Your task to perform on an android device: create a new album in the google photos Image 0: 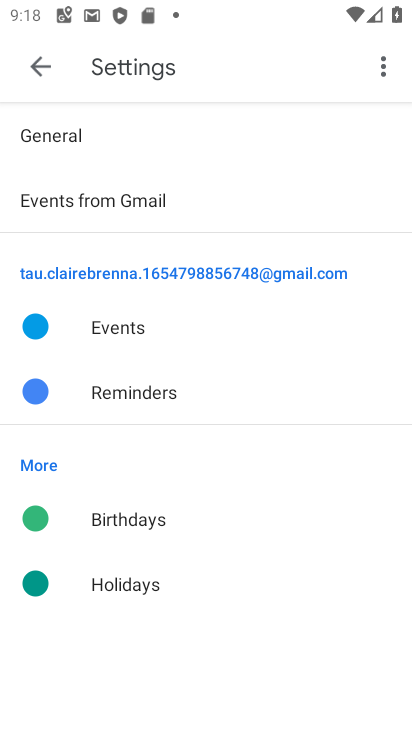
Step 0: press home button
Your task to perform on an android device: create a new album in the google photos Image 1: 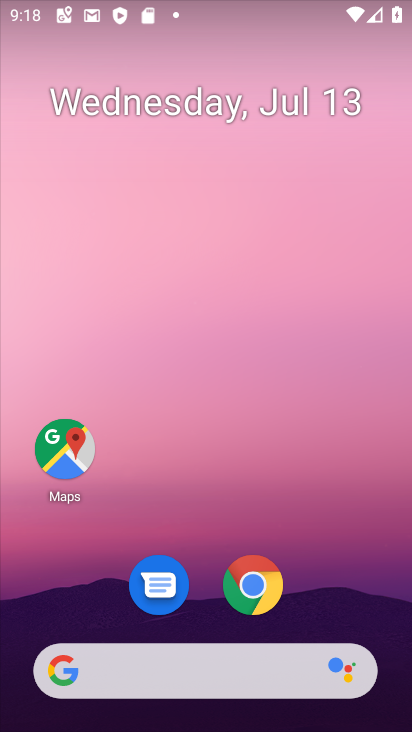
Step 1: drag from (326, 575) to (308, 4)
Your task to perform on an android device: create a new album in the google photos Image 2: 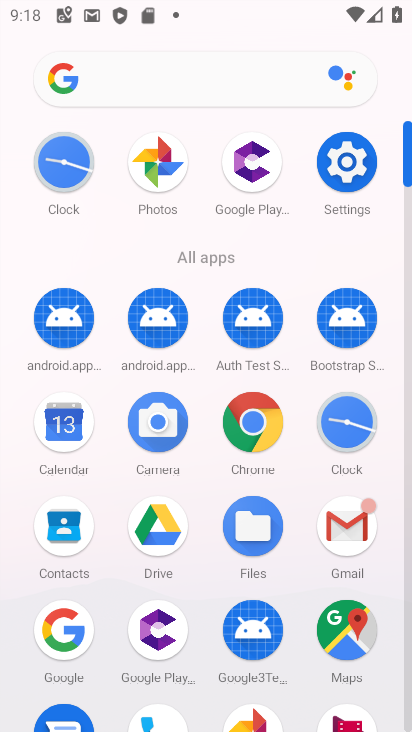
Step 2: click (163, 171)
Your task to perform on an android device: create a new album in the google photos Image 3: 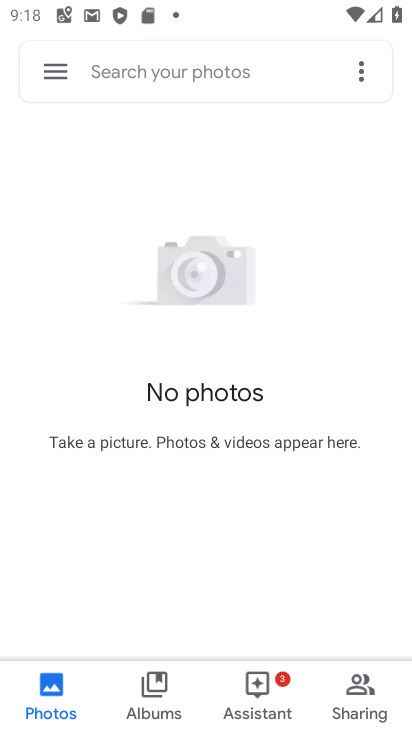
Step 3: click (154, 695)
Your task to perform on an android device: create a new album in the google photos Image 4: 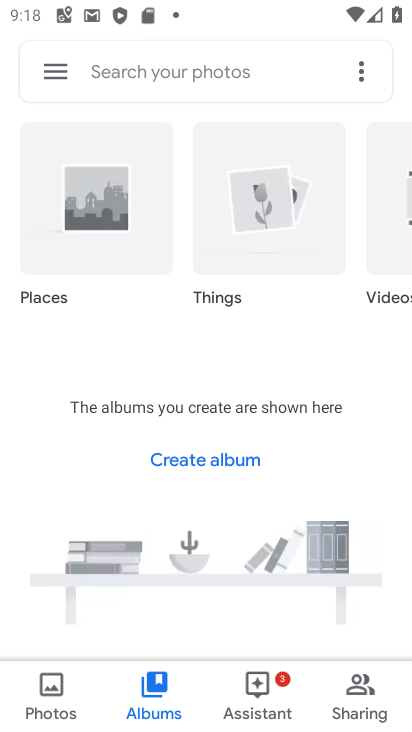
Step 4: drag from (263, 415) to (248, 181)
Your task to perform on an android device: create a new album in the google photos Image 5: 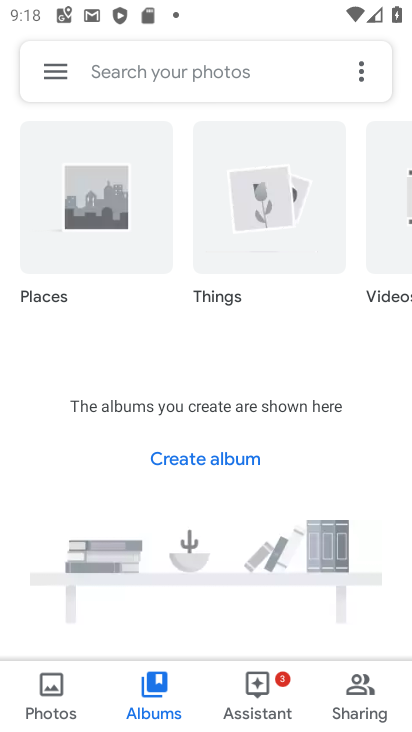
Step 5: drag from (246, 477) to (120, 493)
Your task to perform on an android device: create a new album in the google photos Image 6: 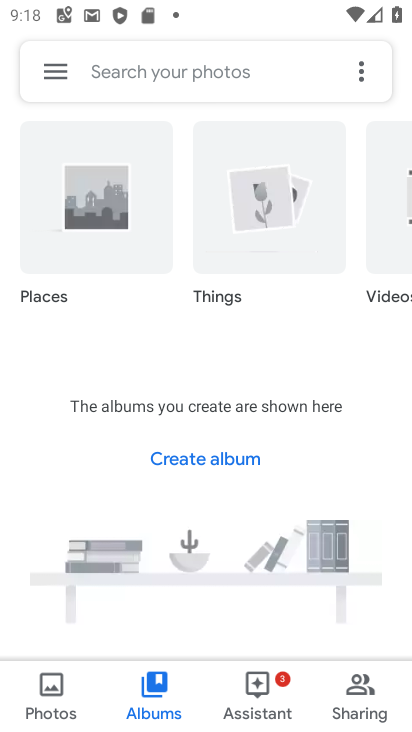
Step 6: click (240, 460)
Your task to perform on an android device: create a new album in the google photos Image 7: 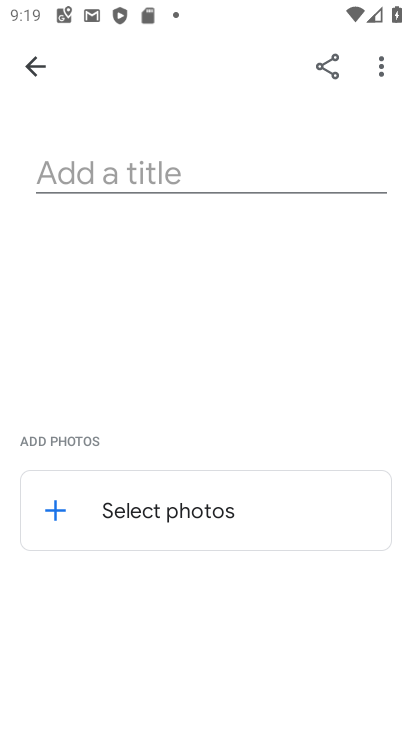
Step 7: click (233, 168)
Your task to perform on an android device: create a new album in the google photos Image 8: 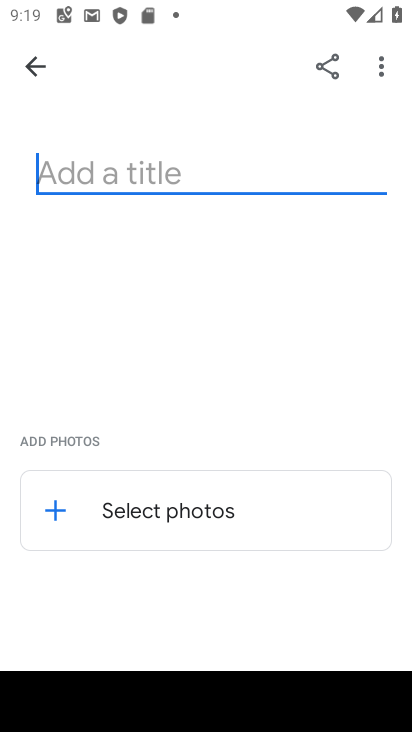
Step 8: type "Rishi Deva"
Your task to perform on an android device: create a new album in the google photos Image 9: 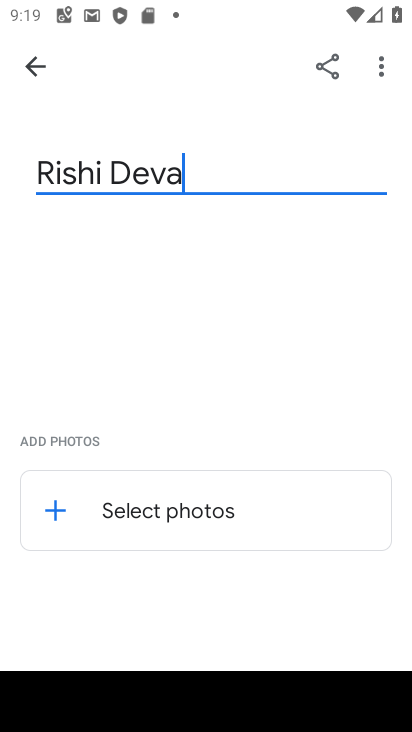
Step 9: click (379, 67)
Your task to perform on an android device: create a new album in the google photos Image 10: 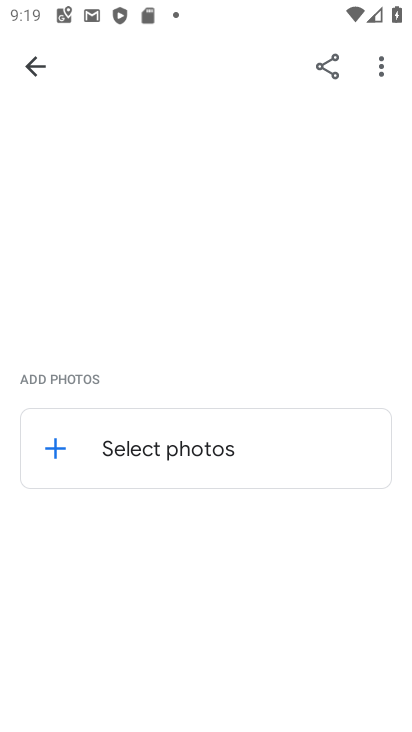
Step 10: click (45, 65)
Your task to perform on an android device: create a new album in the google photos Image 11: 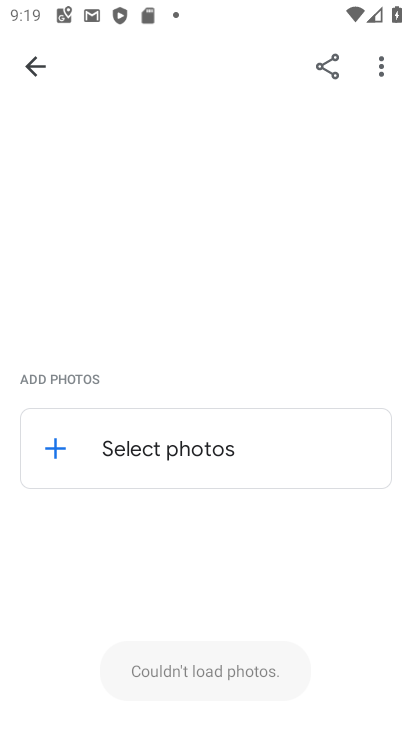
Step 11: click (54, 443)
Your task to perform on an android device: create a new album in the google photos Image 12: 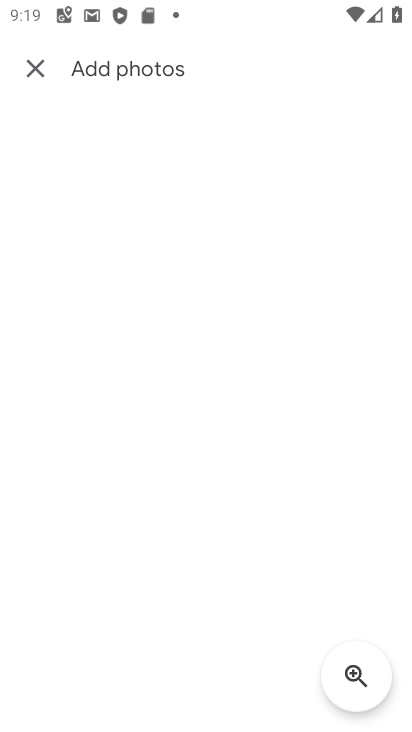
Step 12: click (32, 64)
Your task to perform on an android device: create a new album in the google photos Image 13: 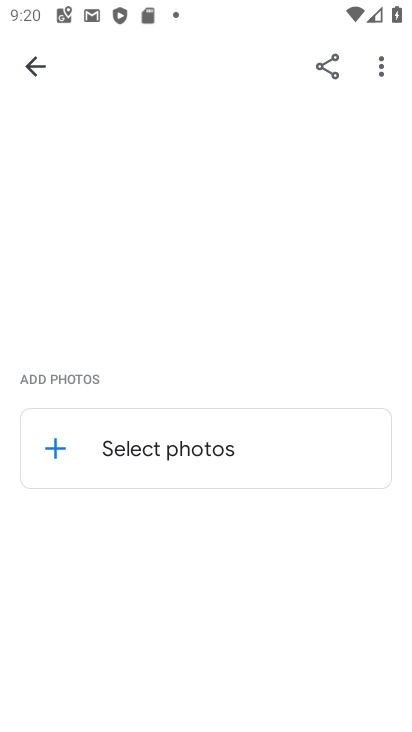
Step 13: click (379, 68)
Your task to perform on an android device: create a new album in the google photos Image 14: 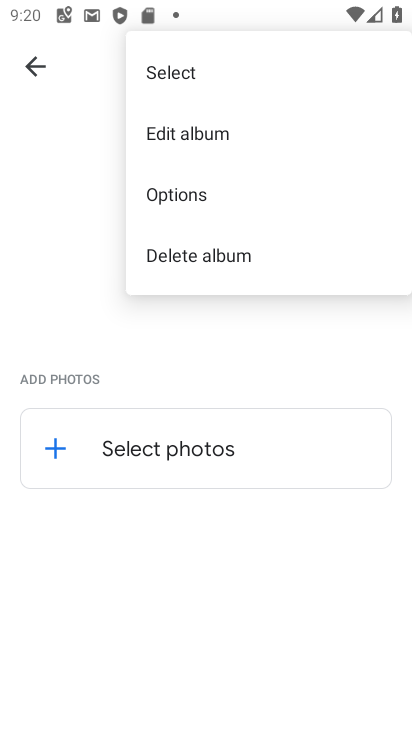
Step 14: click (196, 194)
Your task to perform on an android device: create a new album in the google photos Image 15: 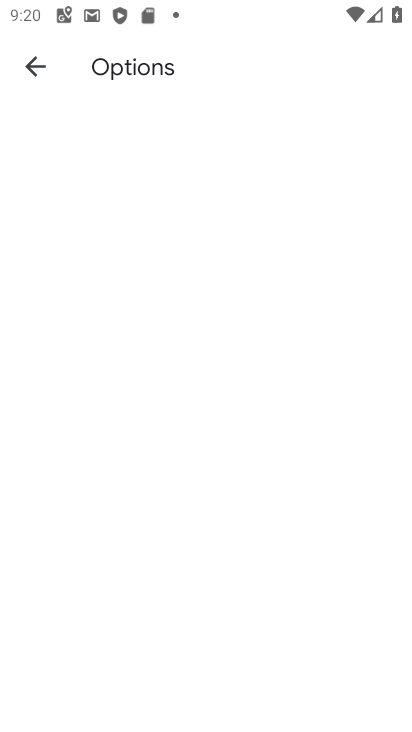
Step 15: click (42, 62)
Your task to perform on an android device: create a new album in the google photos Image 16: 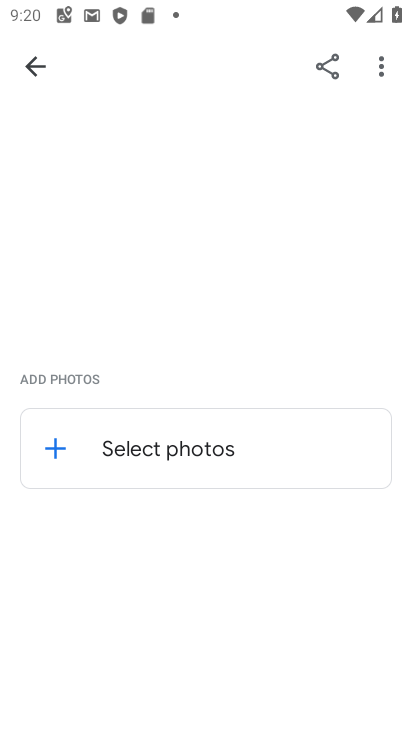
Step 16: click (377, 70)
Your task to perform on an android device: create a new album in the google photos Image 17: 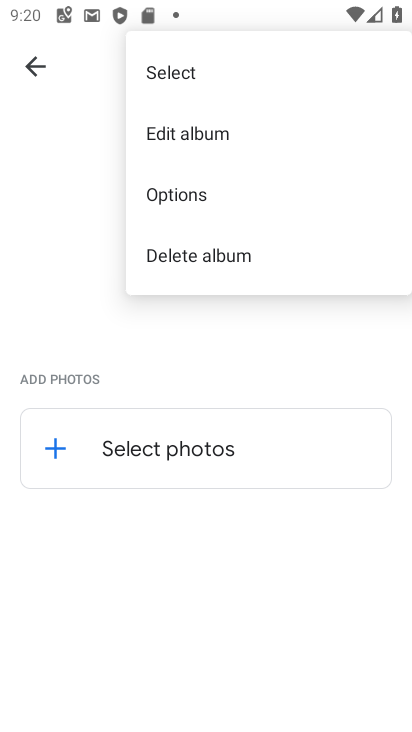
Step 17: click (213, 254)
Your task to perform on an android device: create a new album in the google photos Image 18: 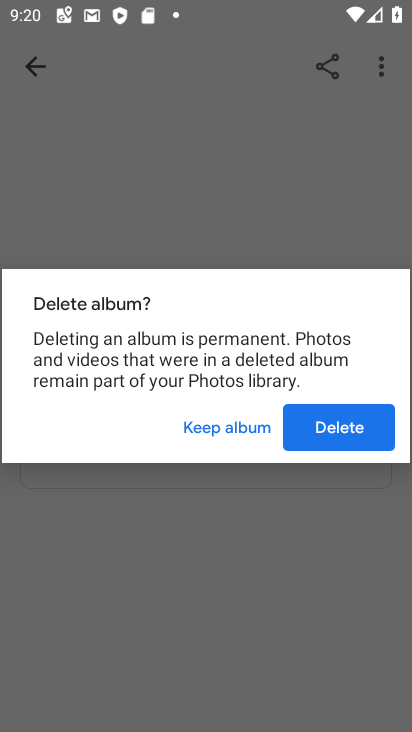
Step 18: click (326, 430)
Your task to perform on an android device: create a new album in the google photos Image 19: 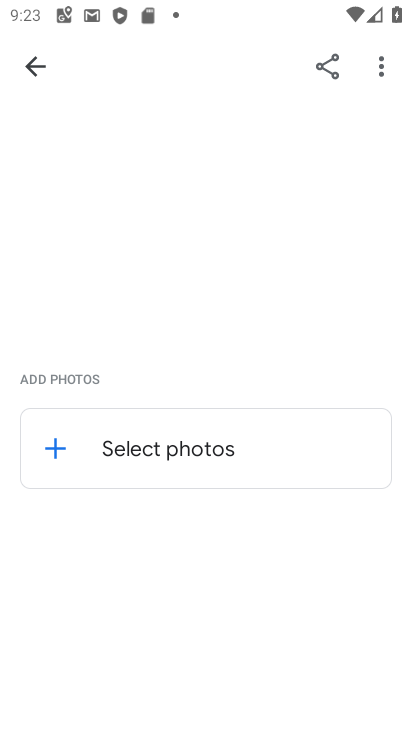
Step 19: task complete